Your task to perform on an android device: turn on translation in the chrome app Image 0: 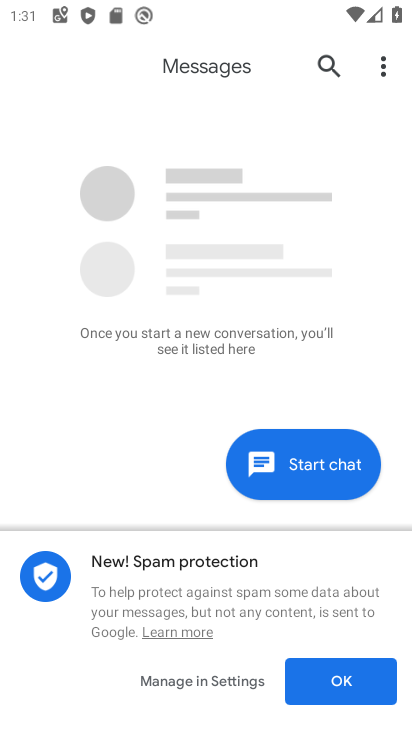
Step 0: press home button
Your task to perform on an android device: turn on translation in the chrome app Image 1: 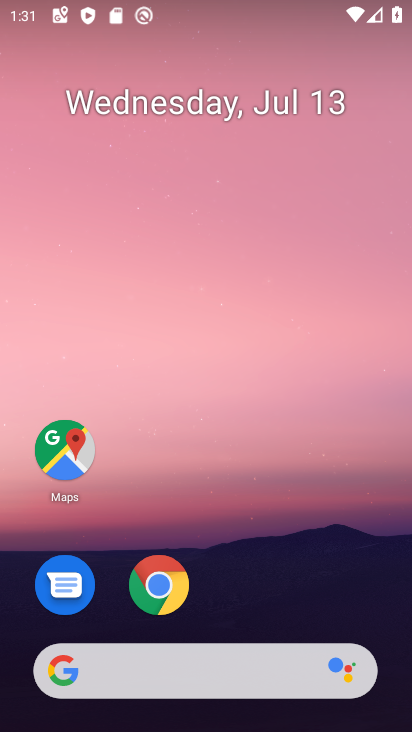
Step 1: click (161, 588)
Your task to perform on an android device: turn on translation in the chrome app Image 2: 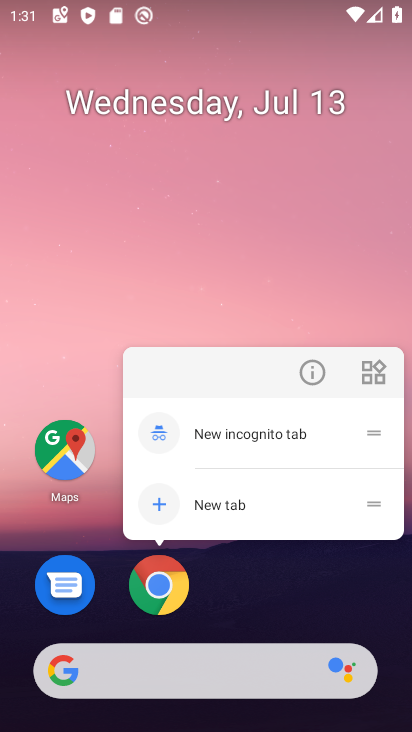
Step 2: click (161, 589)
Your task to perform on an android device: turn on translation in the chrome app Image 3: 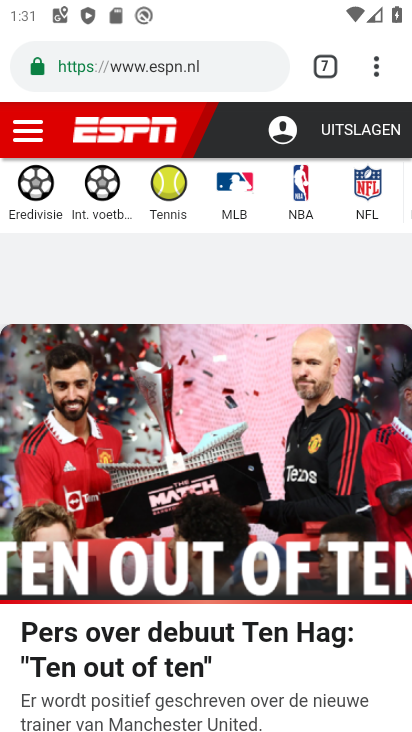
Step 3: drag from (377, 71) to (168, 594)
Your task to perform on an android device: turn on translation in the chrome app Image 4: 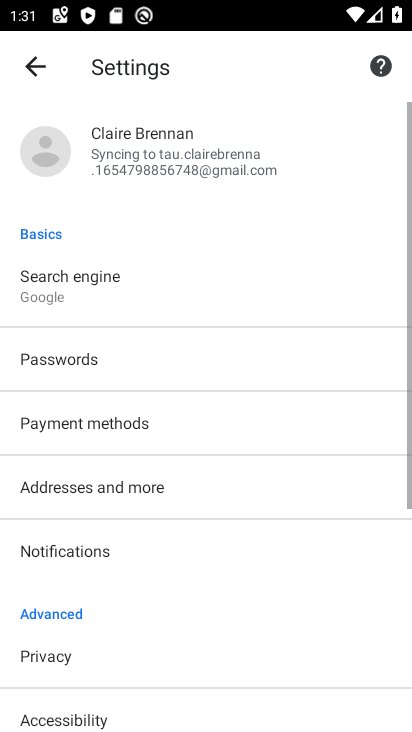
Step 4: drag from (103, 661) to (276, 315)
Your task to perform on an android device: turn on translation in the chrome app Image 5: 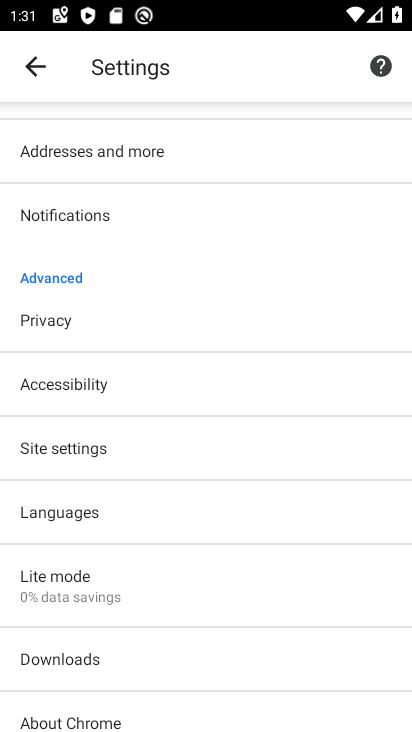
Step 5: click (85, 515)
Your task to perform on an android device: turn on translation in the chrome app Image 6: 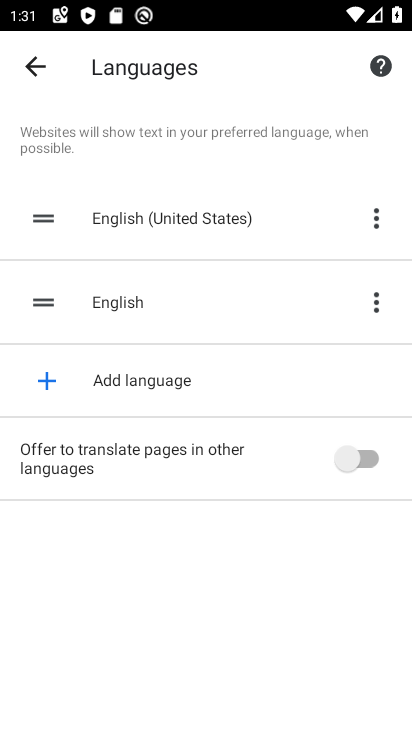
Step 6: click (371, 457)
Your task to perform on an android device: turn on translation in the chrome app Image 7: 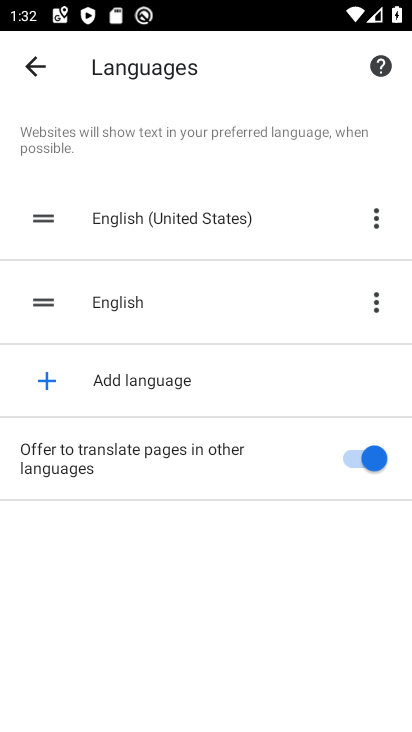
Step 7: task complete